Your task to perform on an android device: turn off notifications settings in the gmail app Image 0: 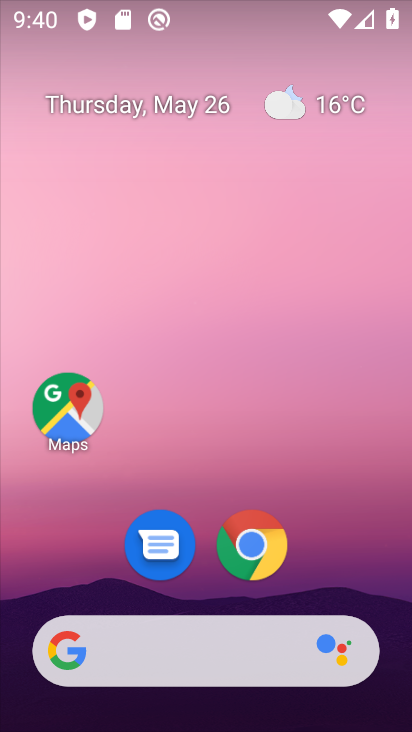
Step 0: drag from (324, 545) to (296, 53)
Your task to perform on an android device: turn off notifications settings in the gmail app Image 1: 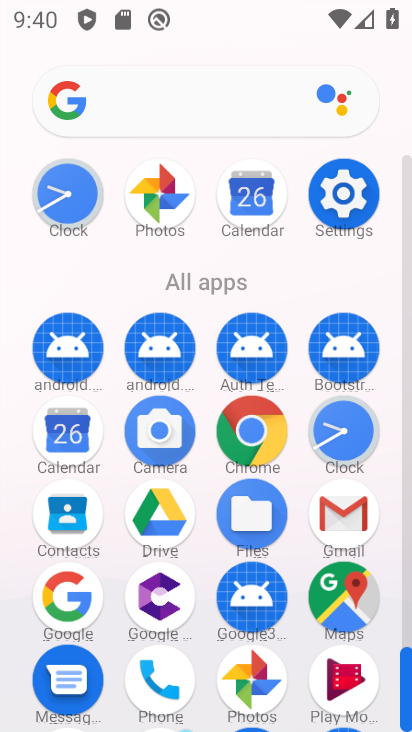
Step 1: click (349, 503)
Your task to perform on an android device: turn off notifications settings in the gmail app Image 2: 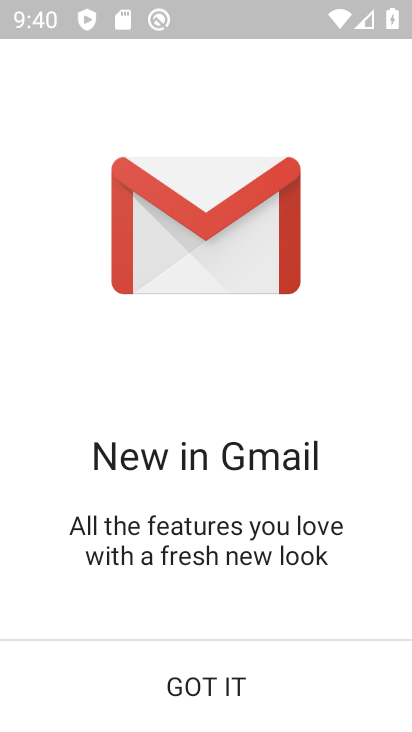
Step 2: click (219, 662)
Your task to perform on an android device: turn off notifications settings in the gmail app Image 3: 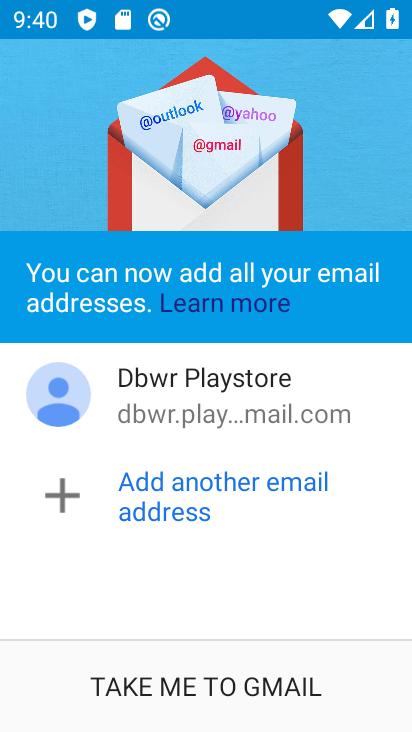
Step 3: click (218, 662)
Your task to perform on an android device: turn off notifications settings in the gmail app Image 4: 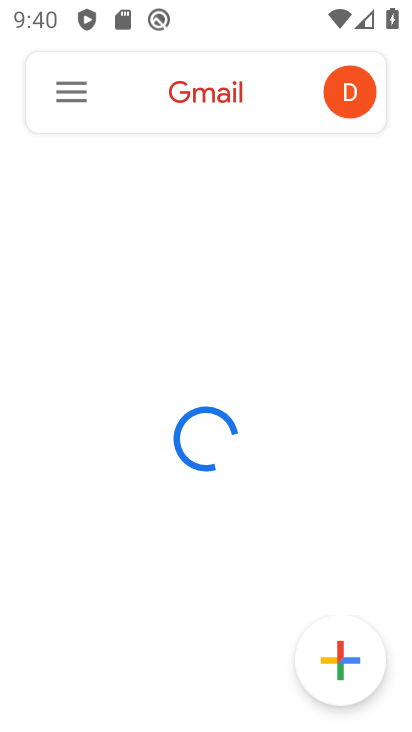
Step 4: click (73, 87)
Your task to perform on an android device: turn off notifications settings in the gmail app Image 5: 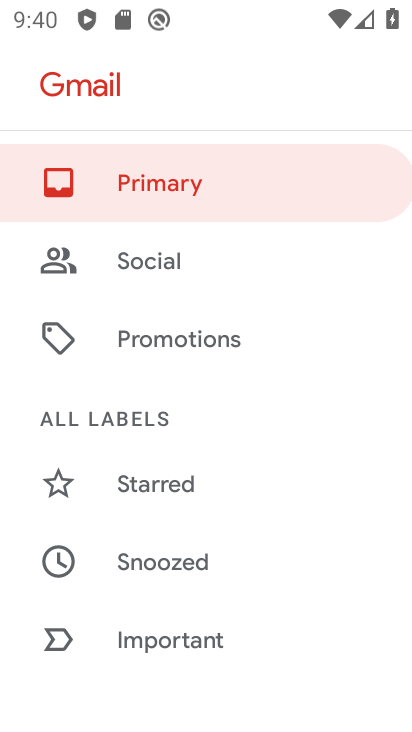
Step 5: click (156, 415)
Your task to perform on an android device: turn off notifications settings in the gmail app Image 6: 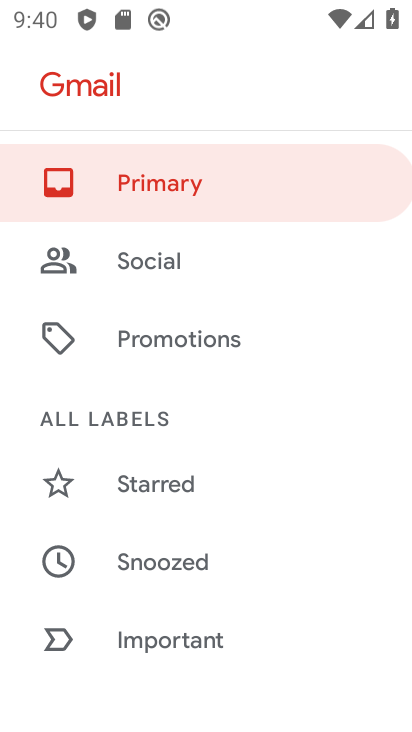
Step 6: drag from (188, 645) to (200, 231)
Your task to perform on an android device: turn off notifications settings in the gmail app Image 7: 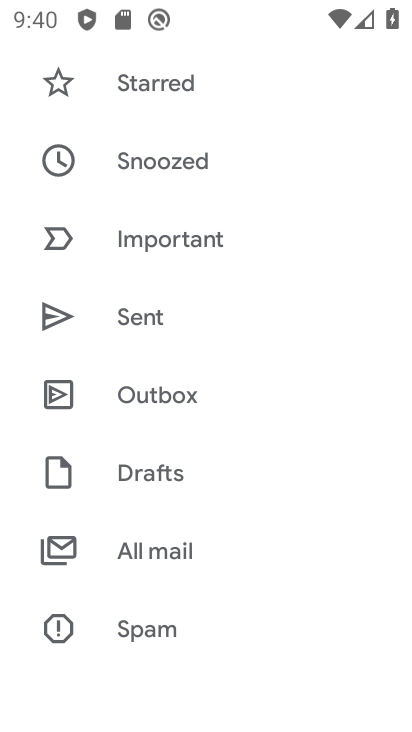
Step 7: drag from (190, 634) to (193, 238)
Your task to perform on an android device: turn off notifications settings in the gmail app Image 8: 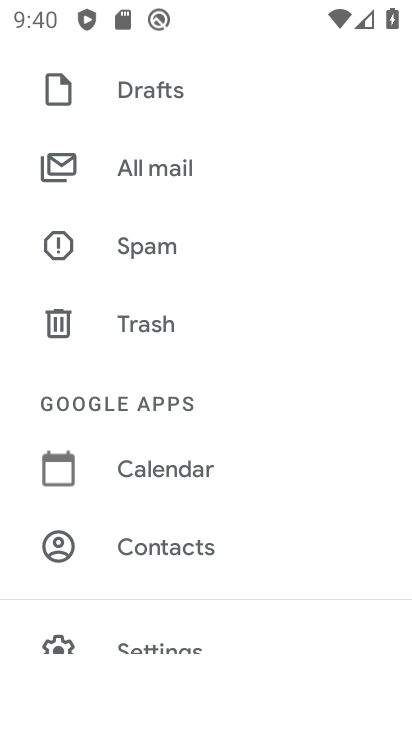
Step 8: drag from (182, 595) to (195, 288)
Your task to perform on an android device: turn off notifications settings in the gmail app Image 9: 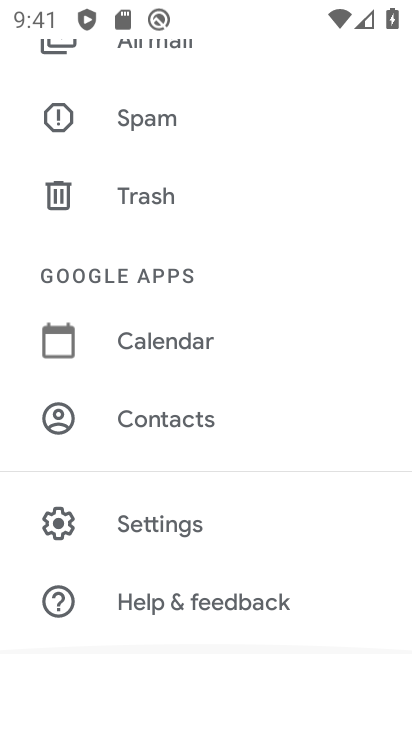
Step 9: click (133, 536)
Your task to perform on an android device: turn off notifications settings in the gmail app Image 10: 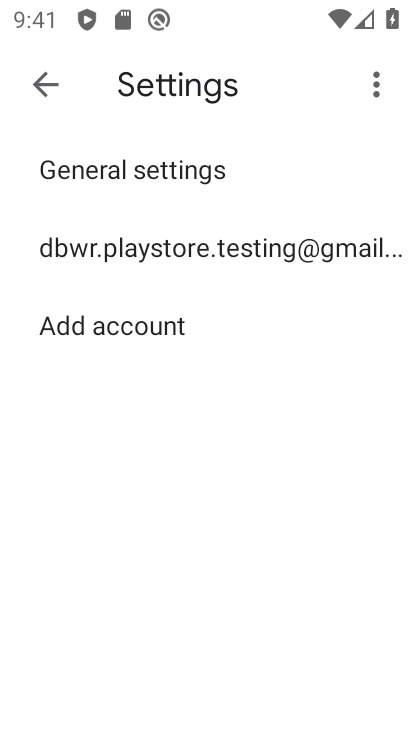
Step 10: click (163, 250)
Your task to perform on an android device: turn off notifications settings in the gmail app Image 11: 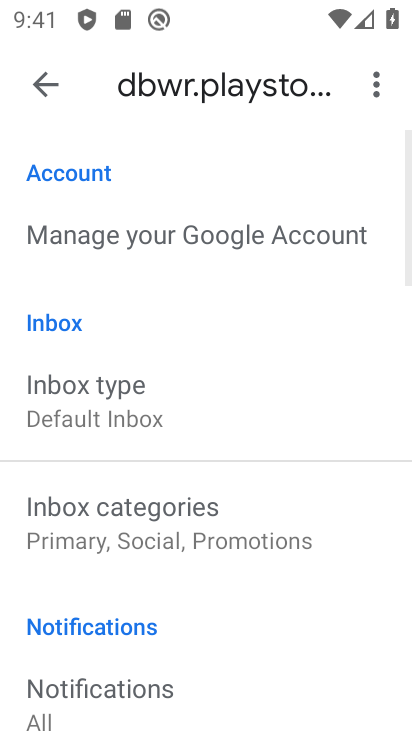
Step 11: click (167, 702)
Your task to perform on an android device: turn off notifications settings in the gmail app Image 12: 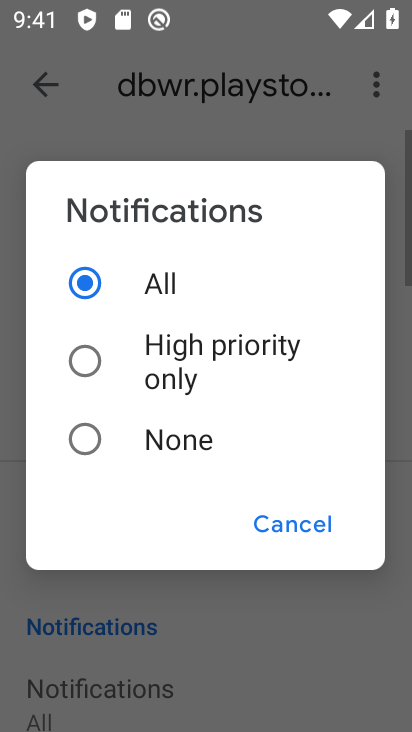
Step 12: click (84, 438)
Your task to perform on an android device: turn off notifications settings in the gmail app Image 13: 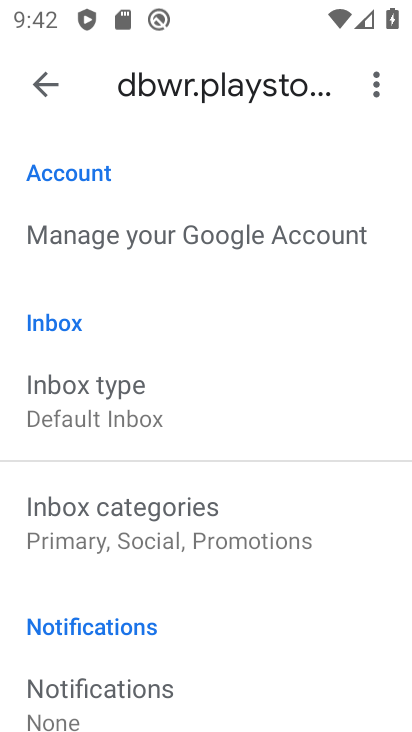
Step 13: task complete